Your task to perform on an android device: Search for vegetarian restaurants on Maps Image 0: 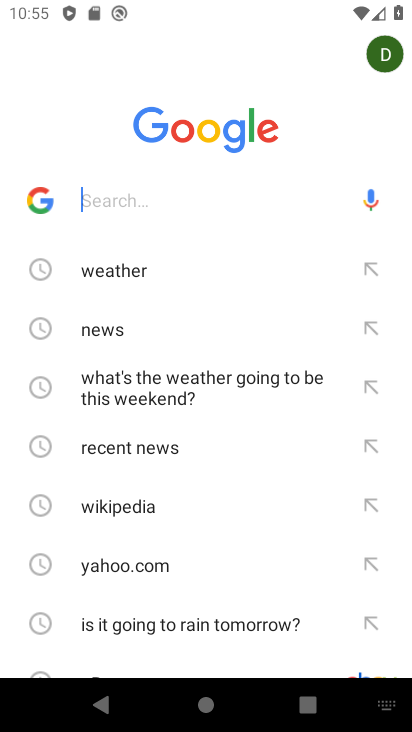
Step 0: press back button
Your task to perform on an android device: Search for vegetarian restaurants on Maps Image 1: 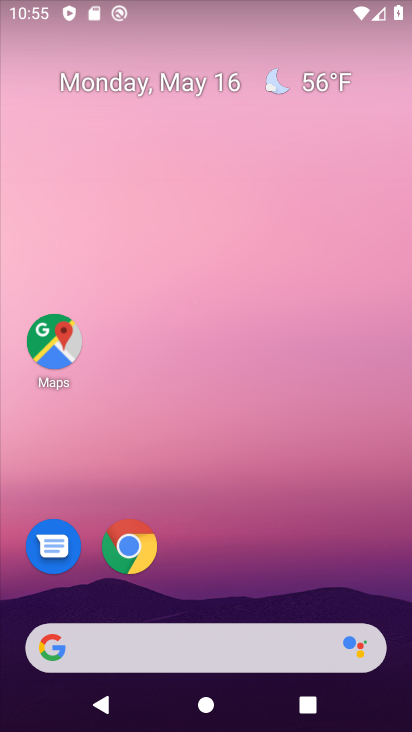
Step 1: click (48, 347)
Your task to perform on an android device: Search for vegetarian restaurants on Maps Image 2: 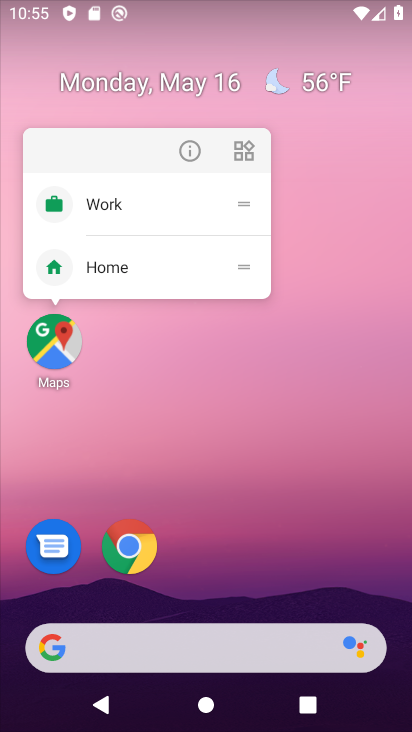
Step 2: click (48, 347)
Your task to perform on an android device: Search for vegetarian restaurants on Maps Image 3: 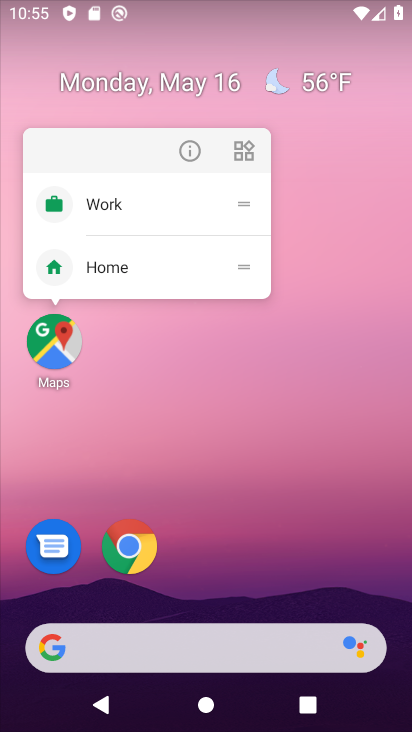
Step 3: click (48, 346)
Your task to perform on an android device: Search for vegetarian restaurants on Maps Image 4: 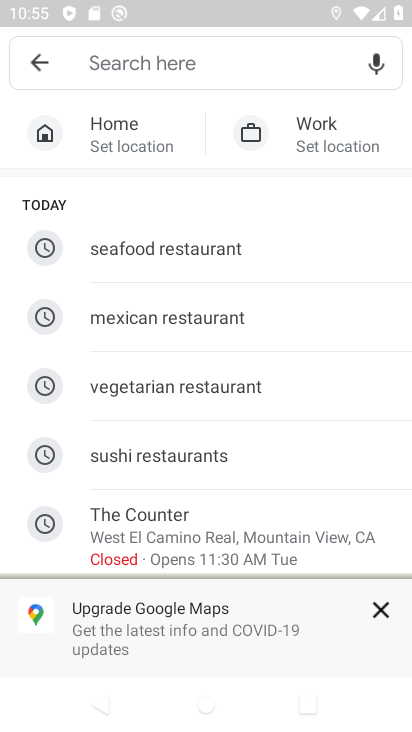
Step 4: click (187, 390)
Your task to perform on an android device: Search for vegetarian restaurants on Maps Image 5: 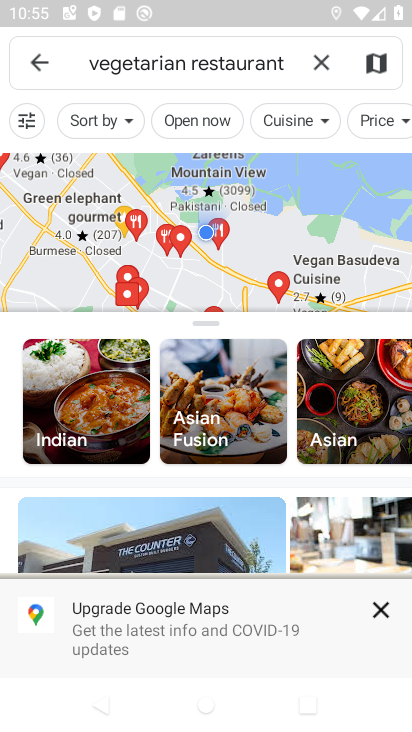
Step 5: task complete